Your task to perform on an android device: Go to location settings Image 0: 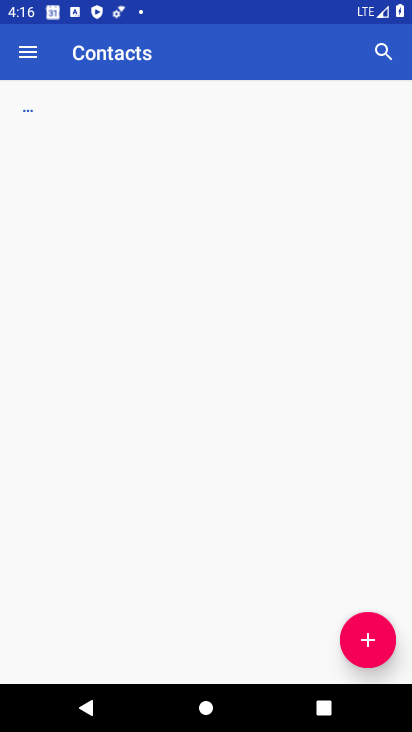
Step 0: drag from (255, 674) to (337, 120)
Your task to perform on an android device: Go to location settings Image 1: 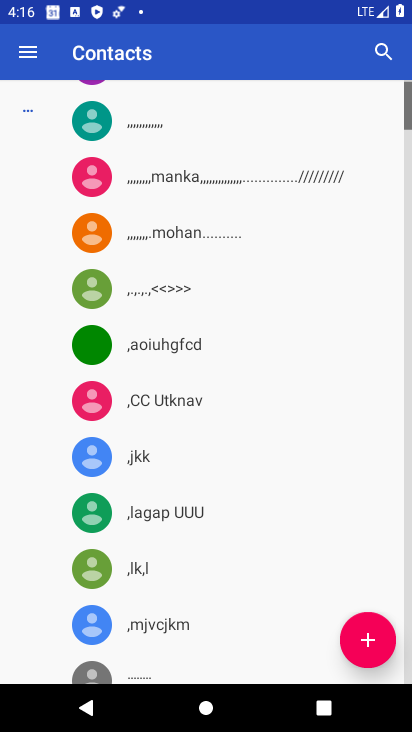
Step 1: press home button
Your task to perform on an android device: Go to location settings Image 2: 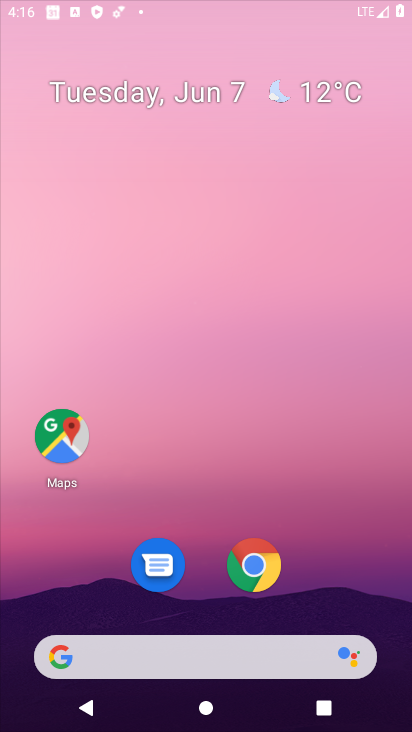
Step 2: drag from (290, 679) to (266, 118)
Your task to perform on an android device: Go to location settings Image 3: 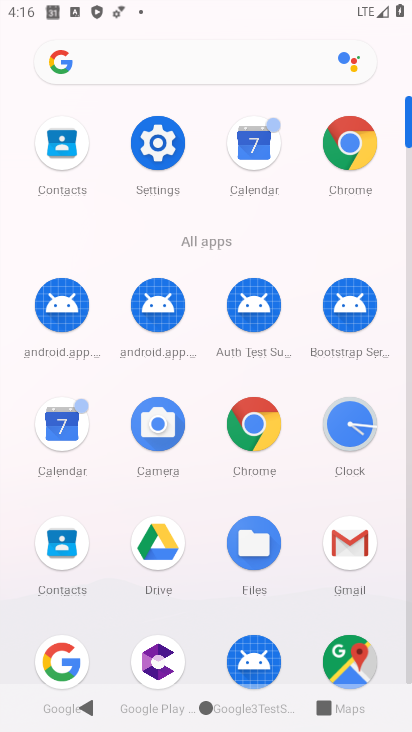
Step 3: click (152, 149)
Your task to perform on an android device: Go to location settings Image 4: 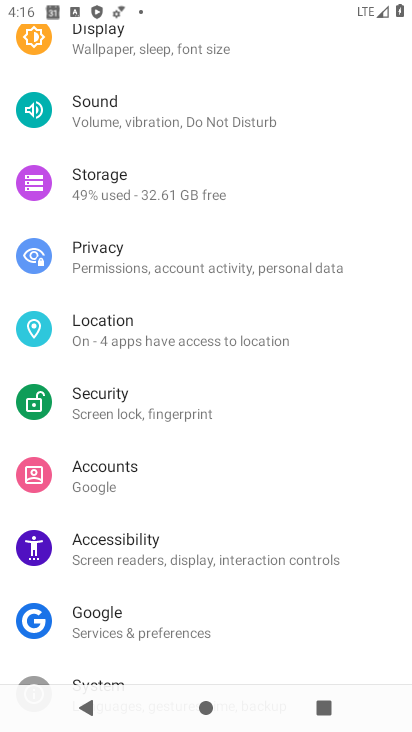
Step 4: click (195, 342)
Your task to perform on an android device: Go to location settings Image 5: 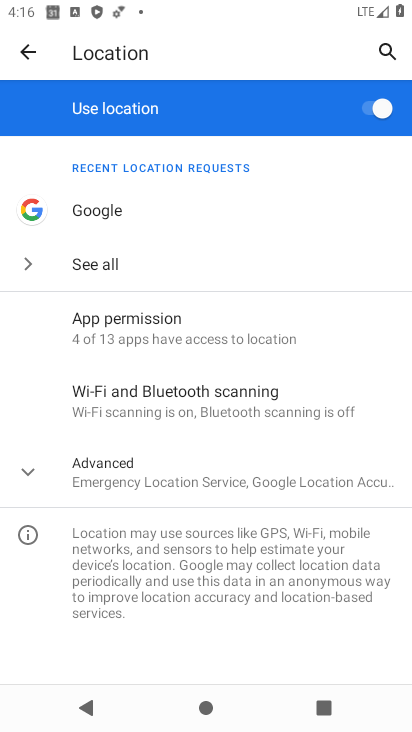
Step 5: task complete